Your task to perform on an android device: Clear the shopping cart on walmart.com. Image 0: 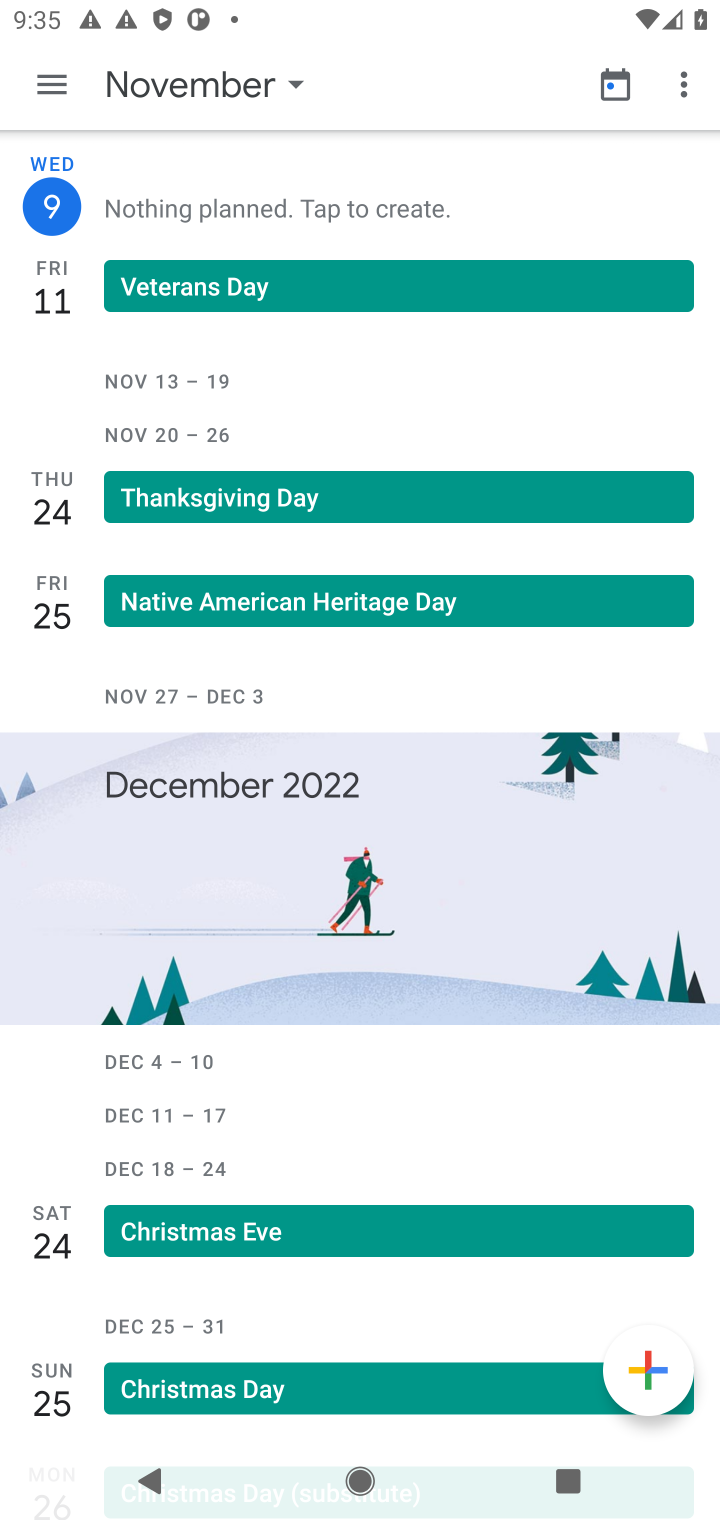
Step 0: press home button
Your task to perform on an android device: Clear the shopping cart on walmart.com. Image 1: 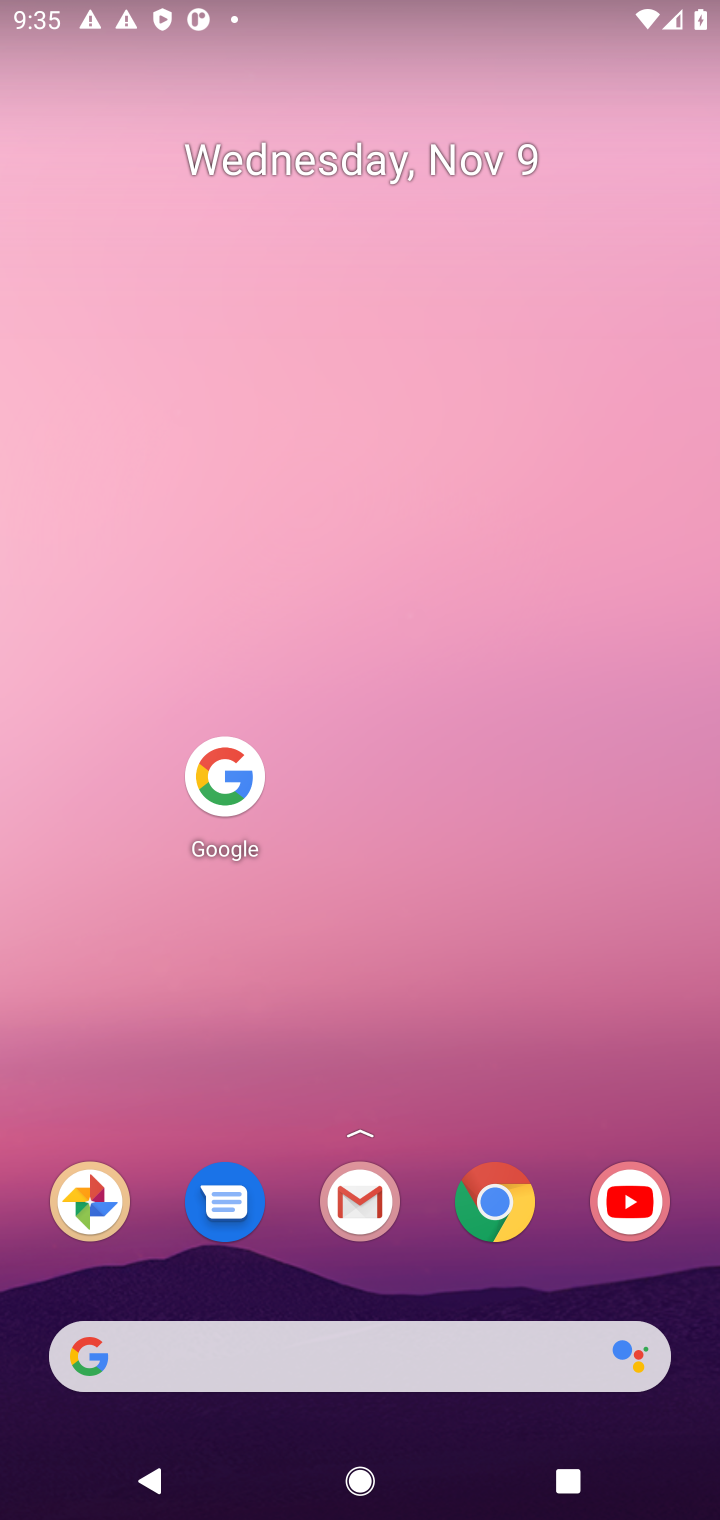
Step 1: click (229, 781)
Your task to perform on an android device: Clear the shopping cart on walmart.com. Image 2: 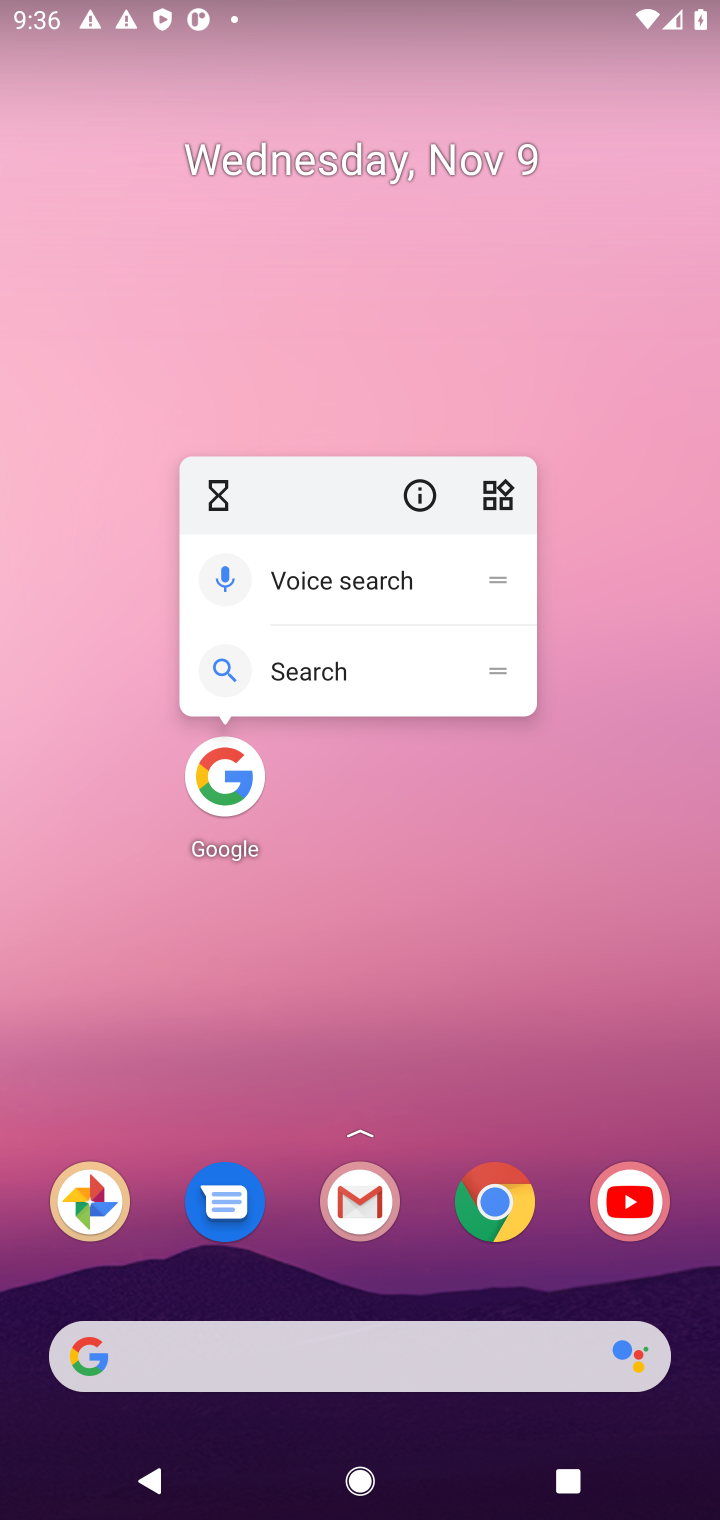
Step 2: click (227, 790)
Your task to perform on an android device: Clear the shopping cart on walmart.com. Image 3: 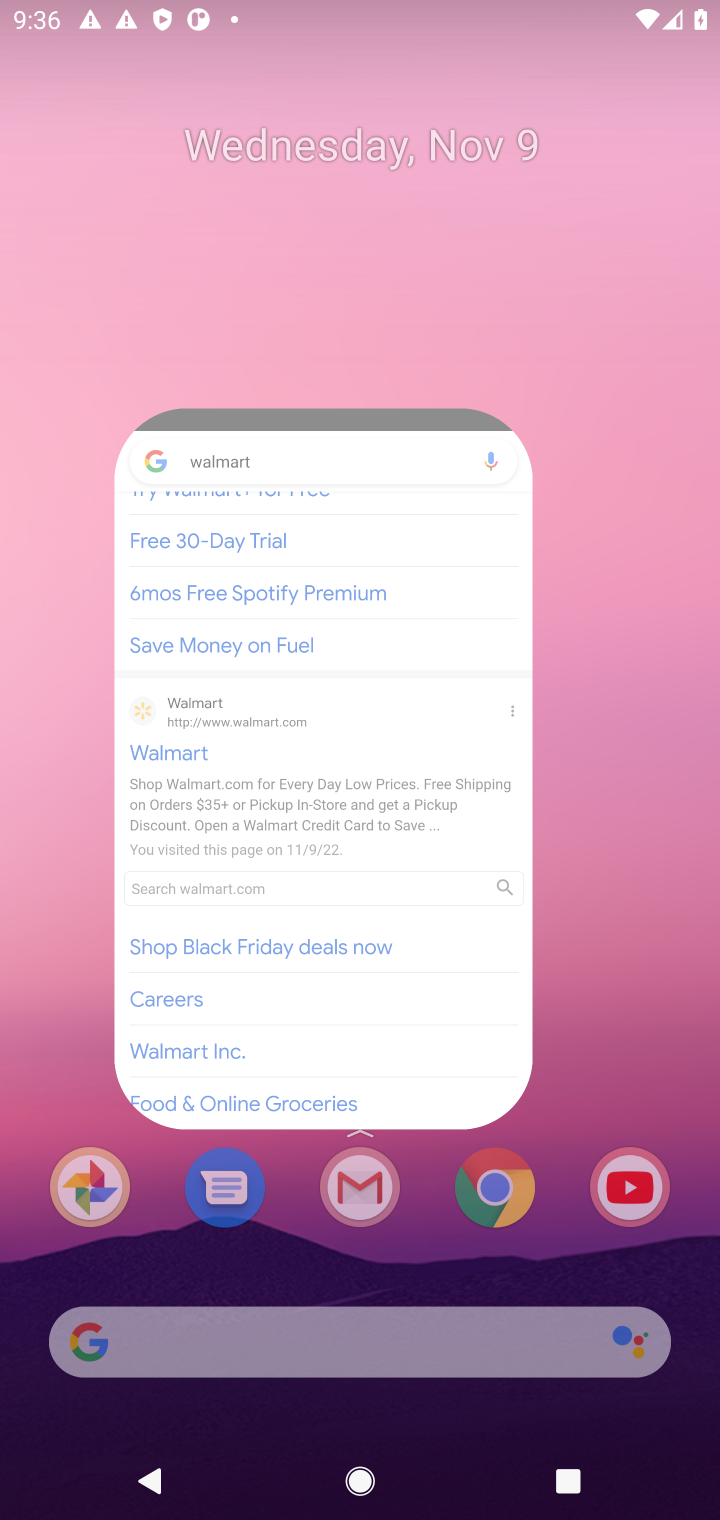
Step 3: click (231, 788)
Your task to perform on an android device: Clear the shopping cart on walmart.com. Image 4: 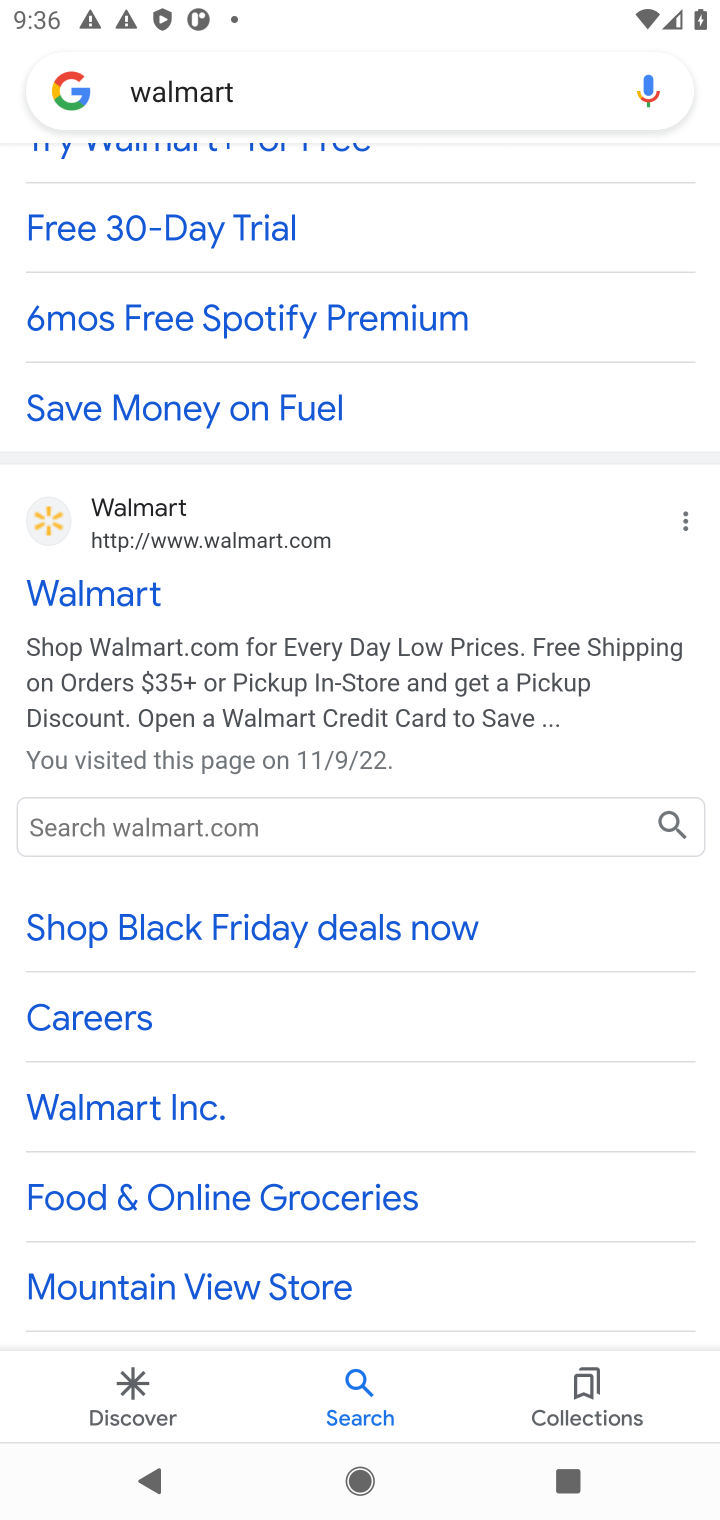
Step 4: click (81, 587)
Your task to perform on an android device: Clear the shopping cart on walmart.com. Image 5: 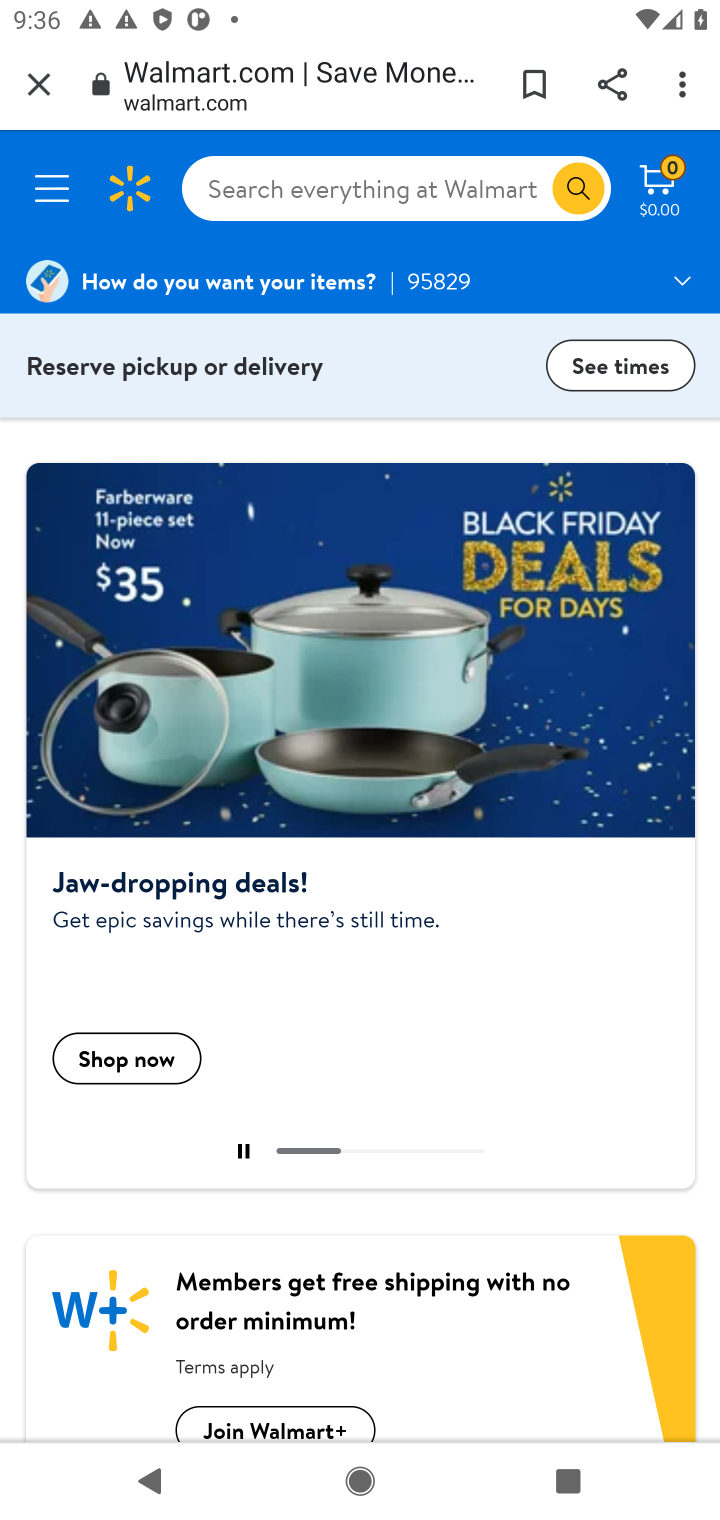
Step 5: click (656, 183)
Your task to perform on an android device: Clear the shopping cart on walmart.com. Image 6: 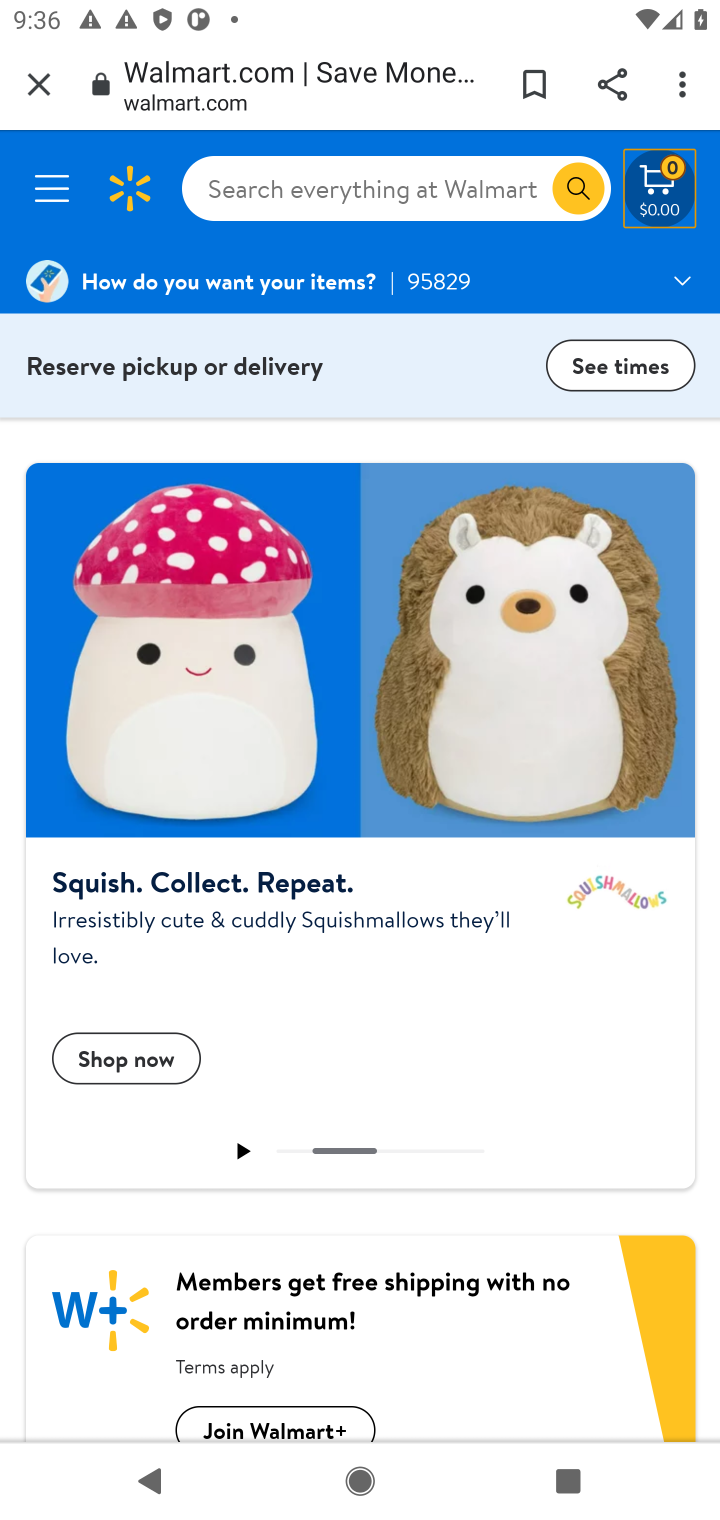
Step 6: click (656, 187)
Your task to perform on an android device: Clear the shopping cart on walmart.com. Image 7: 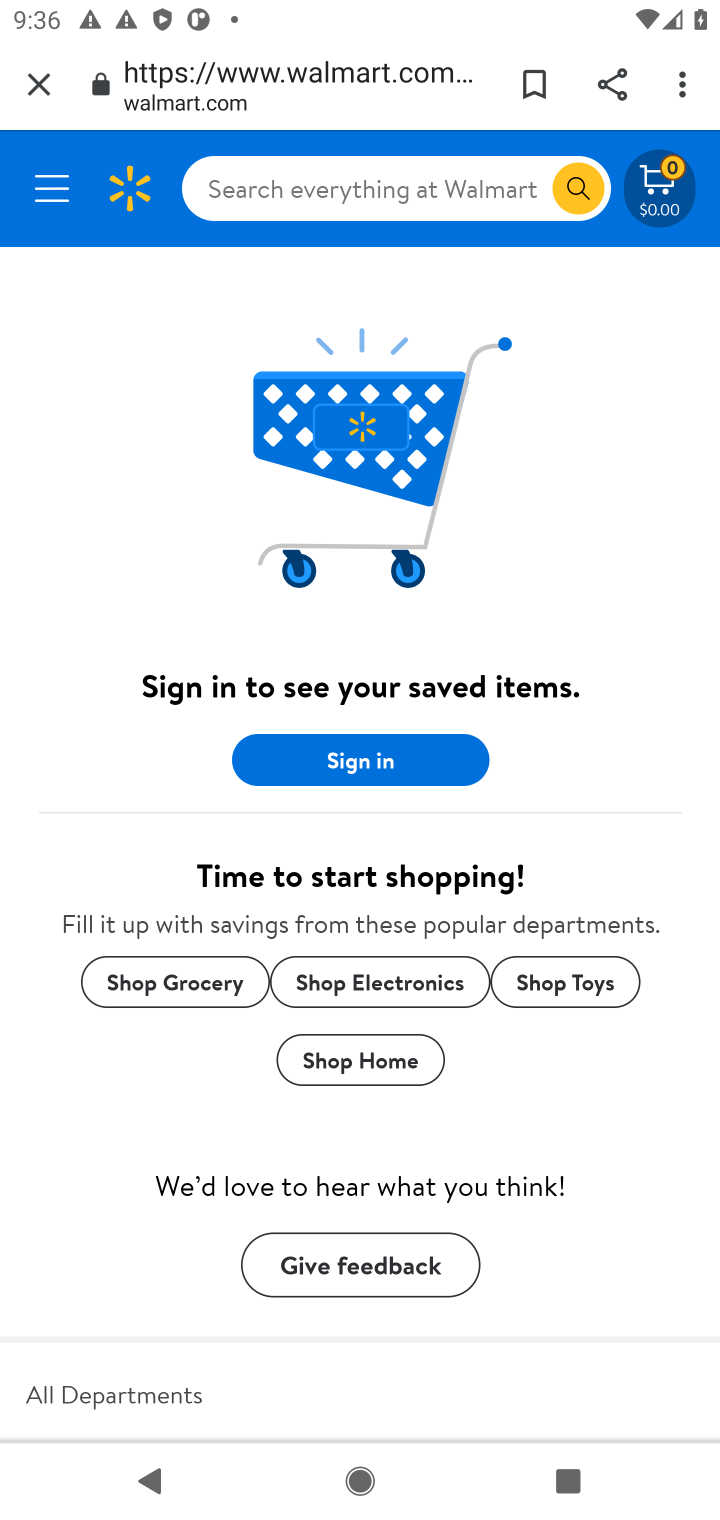
Step 7: click (656, 189)
Your task to perform on an android device: Clear the shopping cart on walmart.com. Image 8: 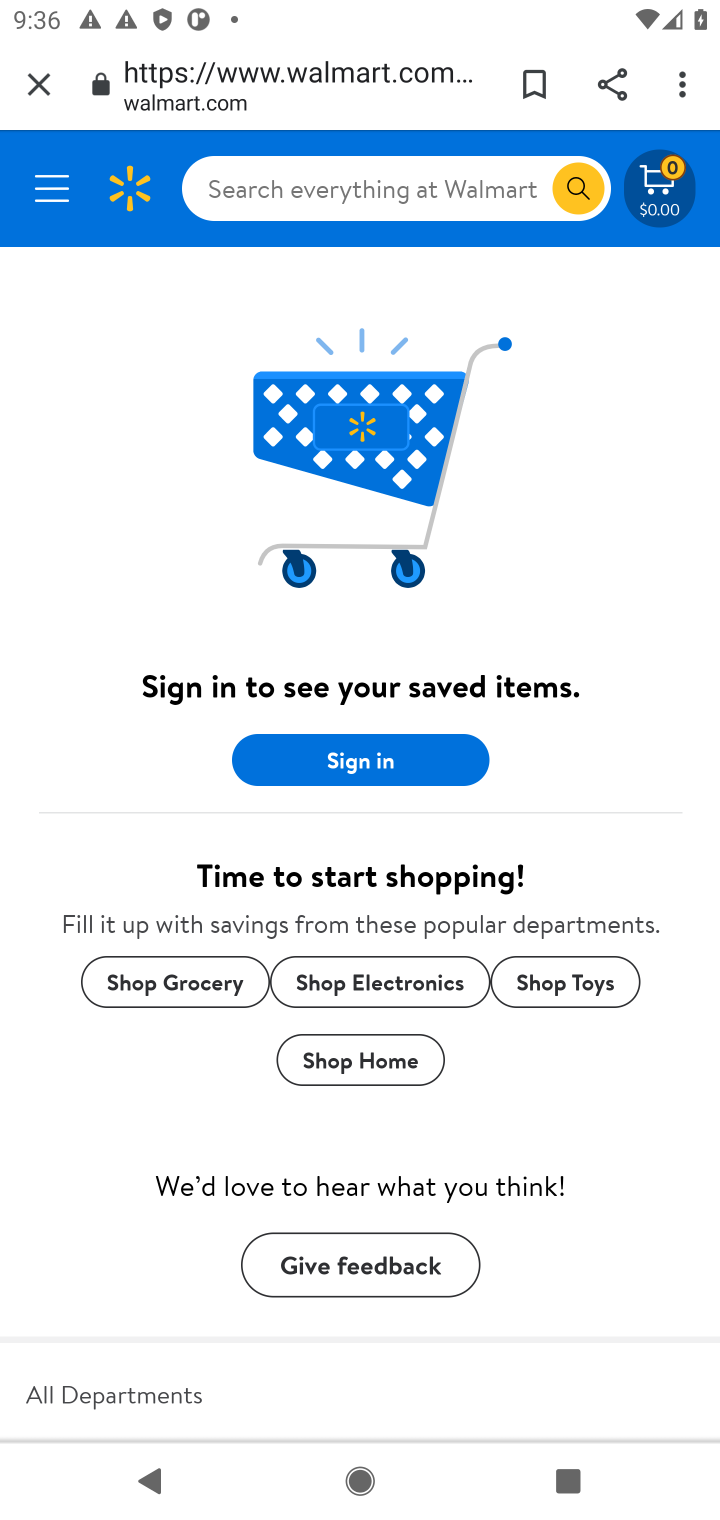
Step 8: click (656, 189)
Your task to perform on an android device: Clear the shopping cart on walmart.com. Image 9: 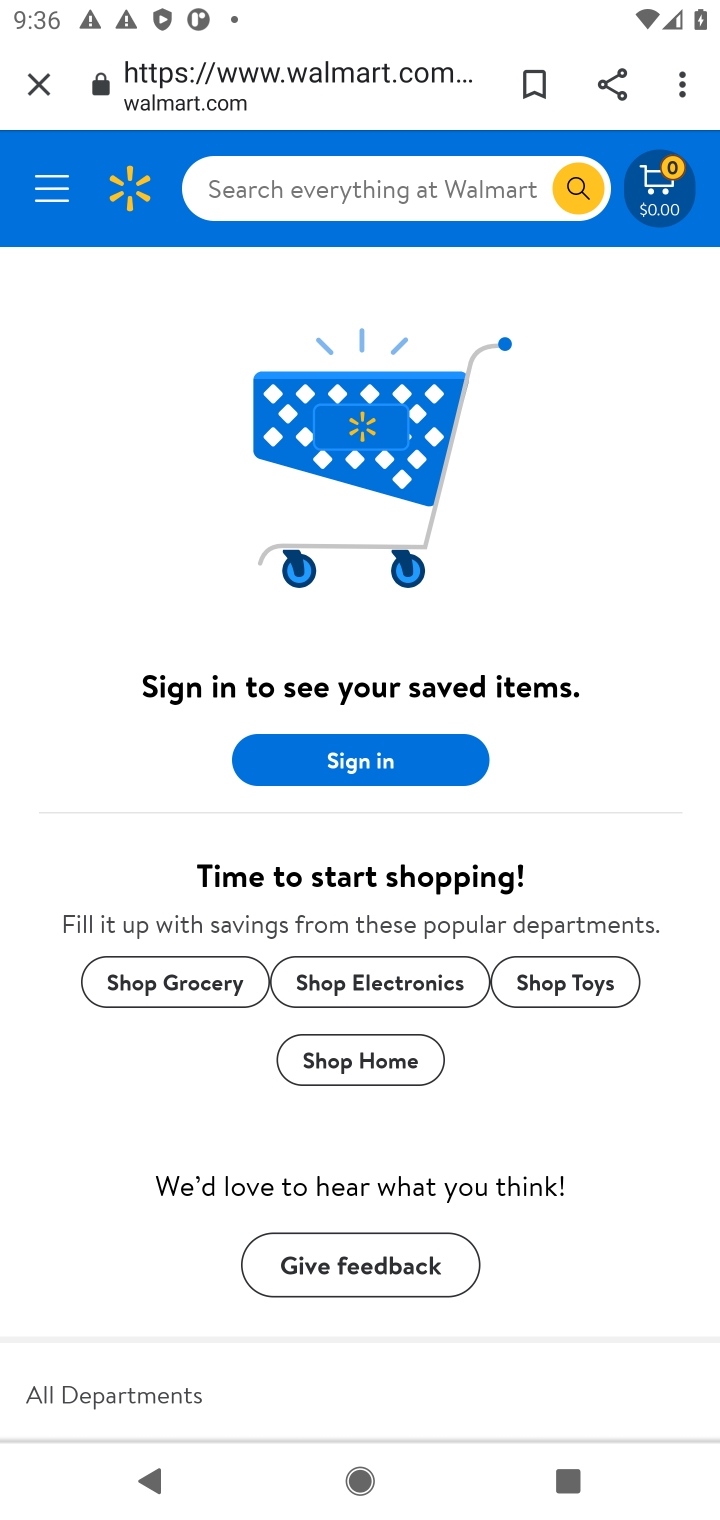
Step 9: click (656, 189)
Your task to perform on an android device: Clear the shopping cart on walmart.com. Image 10: 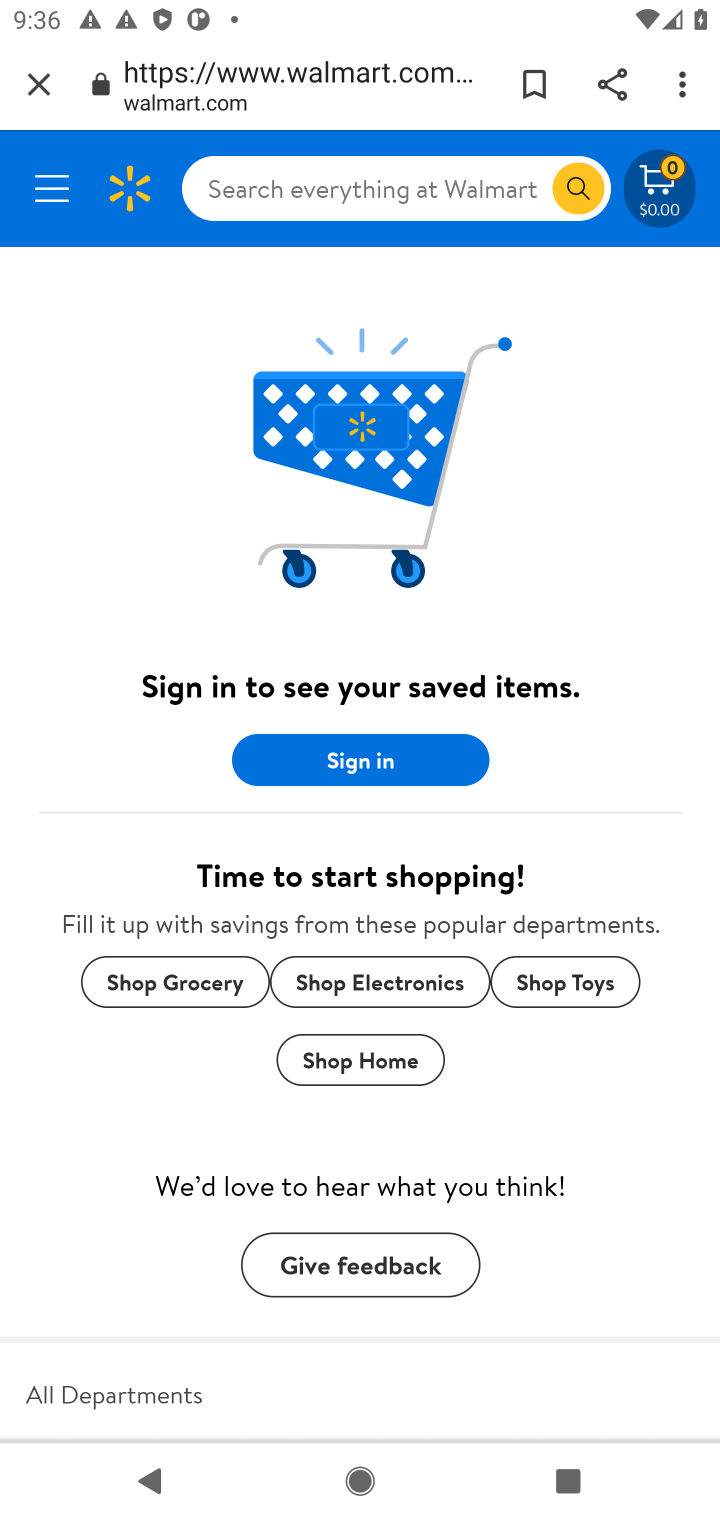
Step 10: task complete